Your task to perform on an android device: Go to Amazon Image 0: 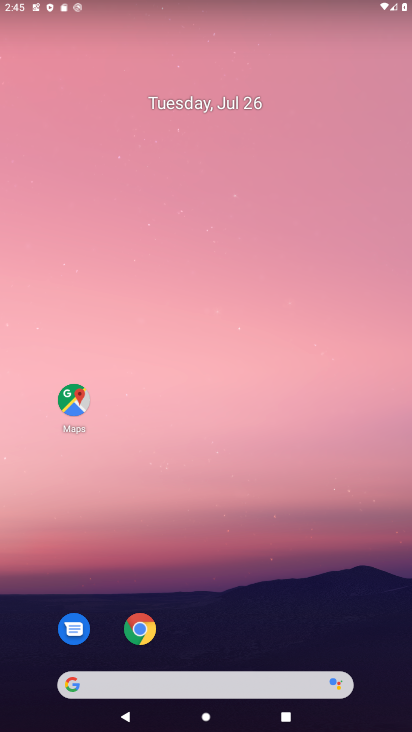
Step 0: click (155, 636)
Your task to perform on an android device: Go to Amazon Image 1: 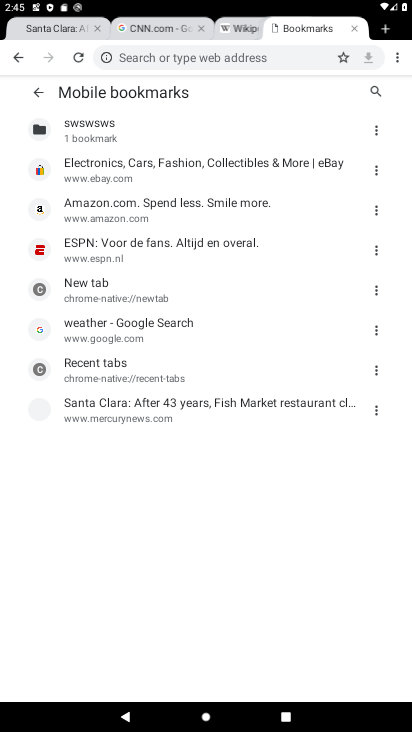
Step 1: click (381, 35)
Your task to perform on an android device: Go to Amazon Image 2: 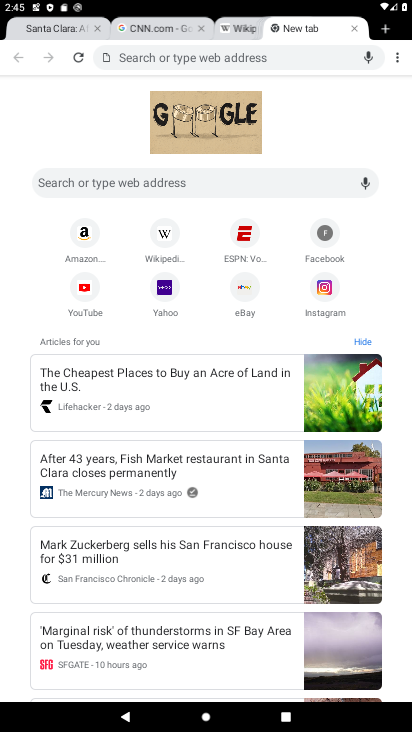
Step 2: click (87, 251)
Your task to perform on an android device: Go to Amazon Image 3: 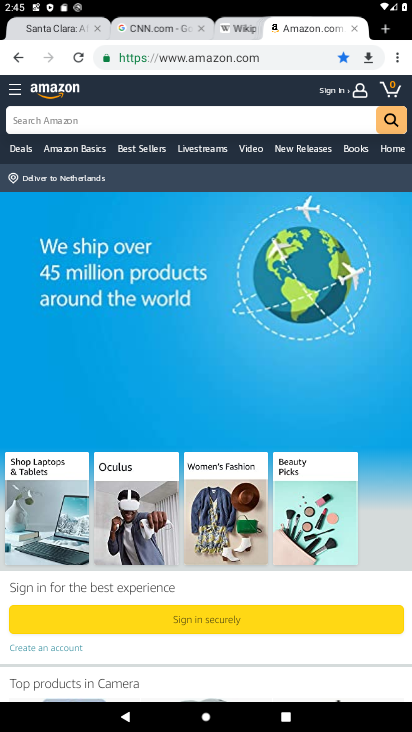
Step 3: task complete